Your task to perform on an android device: open chrome privacy settings Image 0: 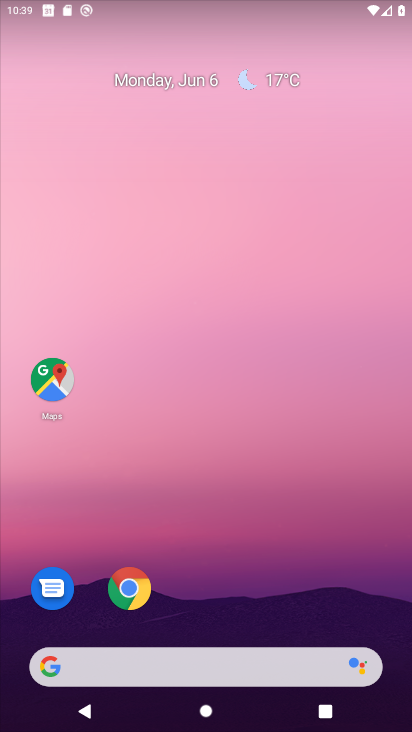
Step 0: click (135, 604)
Your task to perform on an android device: open chrome privacy settings Image 1: 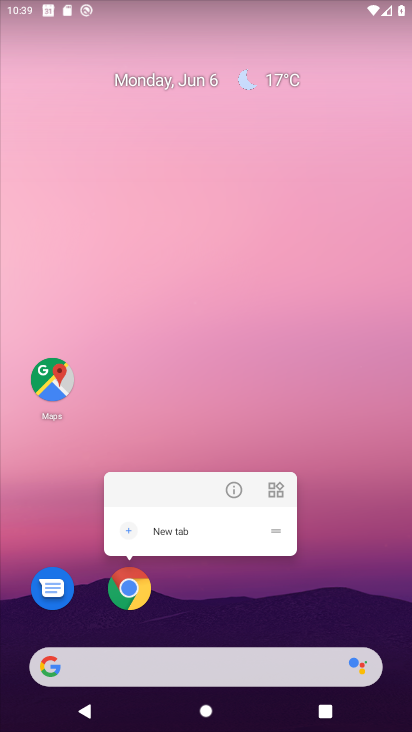
Step 1: click (132, 598)
Your task to perform on an android device: open chrome privacy settings Image 2: 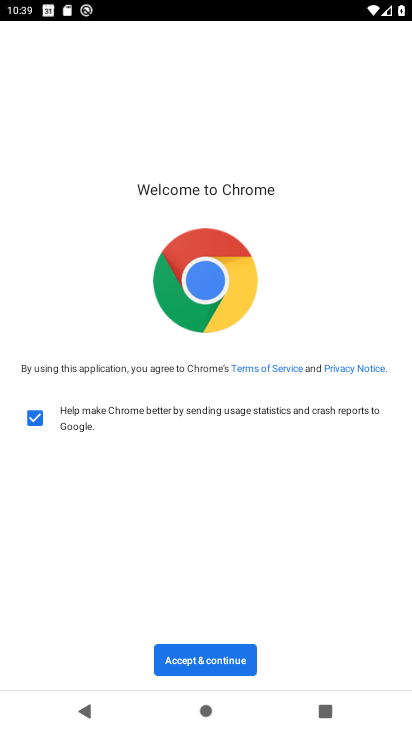
Step 2: click (184, 651)
Your task to perform on an android device: open chrome privacy settings Image 3: 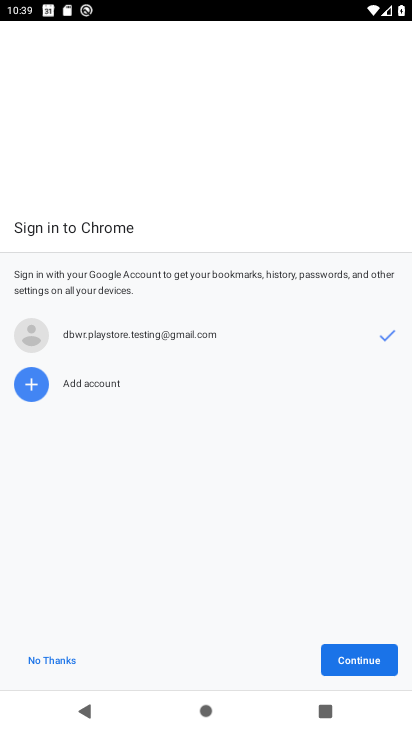
Step 3: click (382, 666)
Your task to perform on an android device: open chrome privacy settings Image 4: 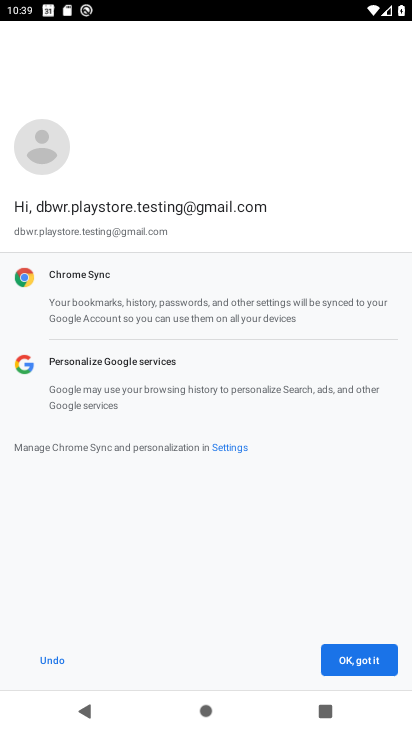
Step 4: click (382, 662)
Your task to perform on an android device: open chrome privacy settings Image 5: 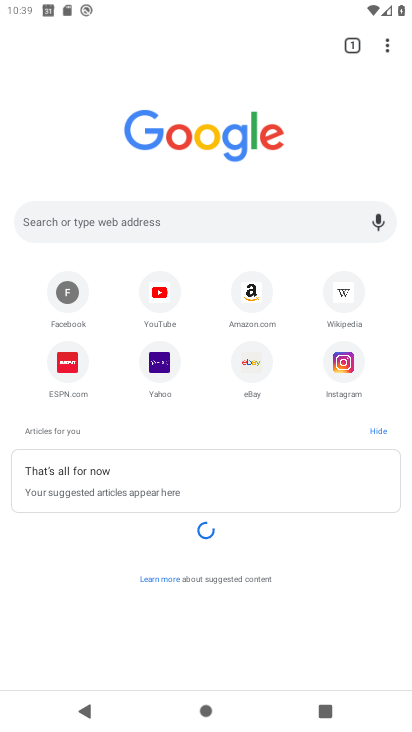
Step 5: drag from (387, 49) to (284, 384)
Your task to perform on an android device: open chrome privacy settings Image 6: 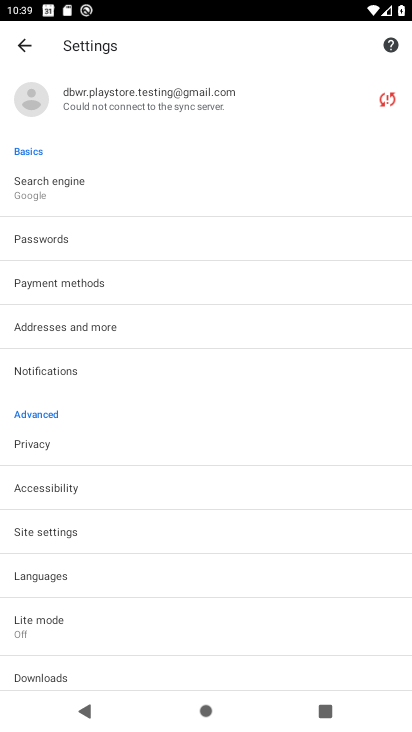
Step 6: click (95, 451)
Your task to perform on an android device: open chrome privacy settings Image 7: 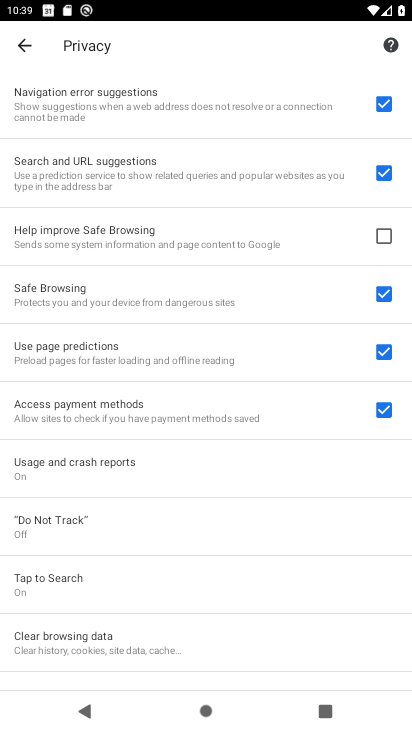
Step 7: task complete